Your task to perform on an android device: check battery use Image 0: 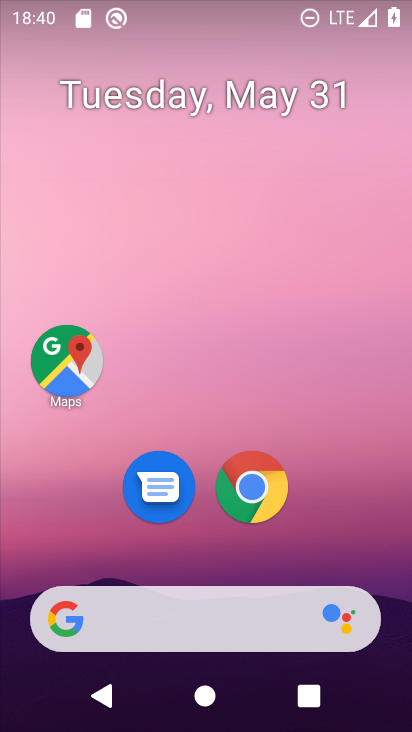
Step 0: drag from (342, 504) to (213, 178)
Your task to perform on an android device: check battery use Image 1: 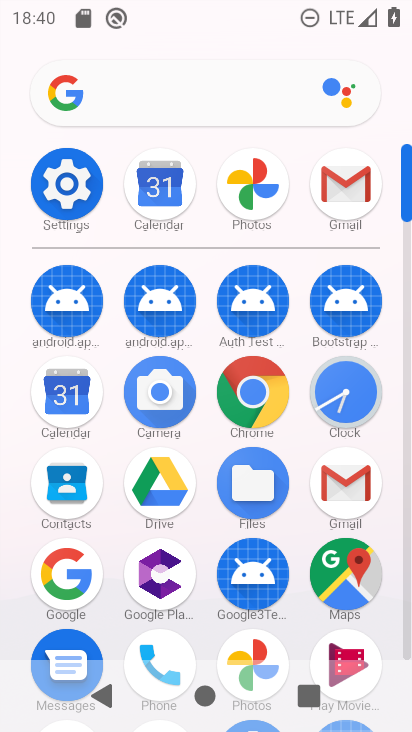
Step 1: click (61, 173)
Your task to perform on an android device: check battery use Image 2: 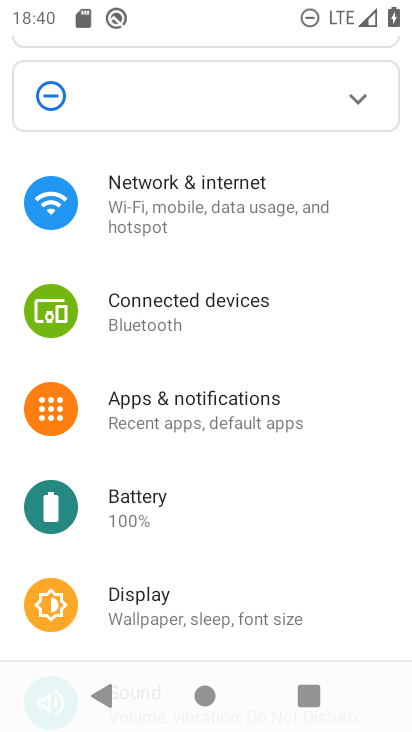
Step 2: click (129, 495)
Your task to perform on an android device: check battery use Image 3: 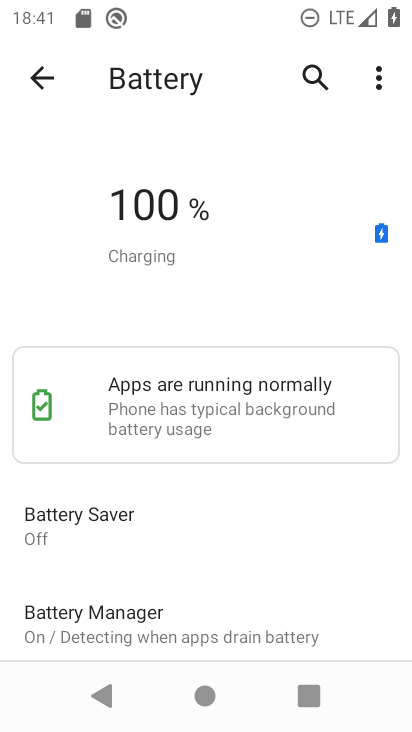
Step 3: task complete